Your task to perform on an android device: find which apps use the phone's location Image 0: 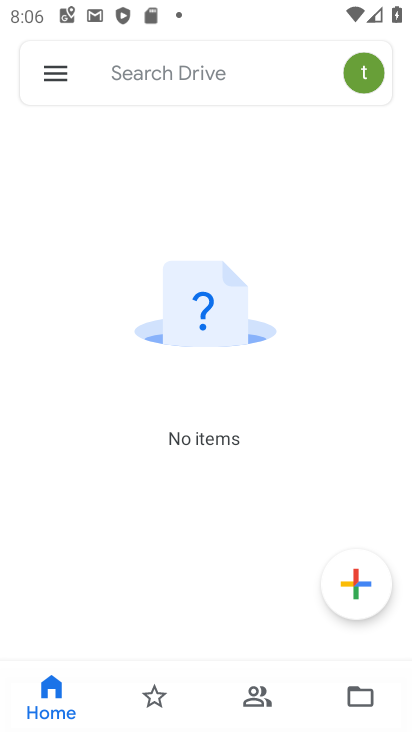
Step 0: press home button
Your task to perform on an android device: find which apps use the phone's location Image 1: 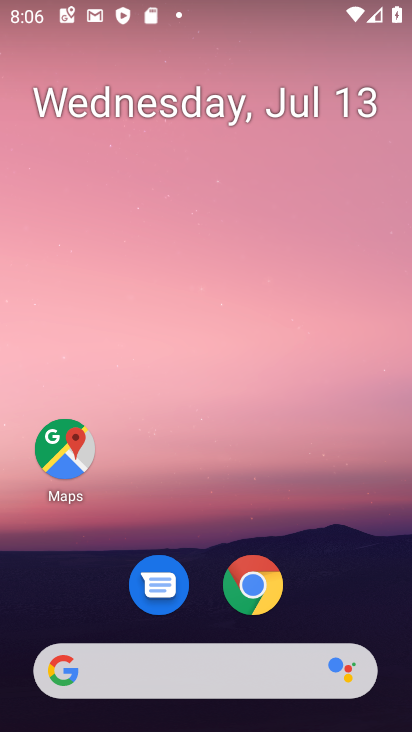
Step 1: drag from (252, 443) to (267, 17)
Your task to perform on an android device: find which apps use the phone's location Image 2: 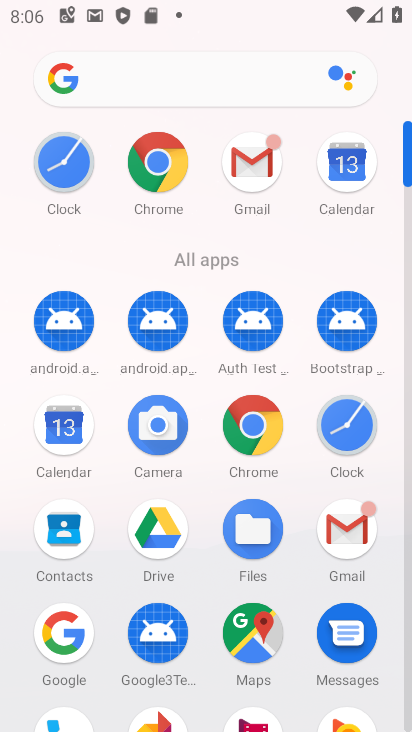
Step 2: drag from (202, 503) to (214, 158)
Your task to perform on an android device: find which apps use the phone's location Image 3: 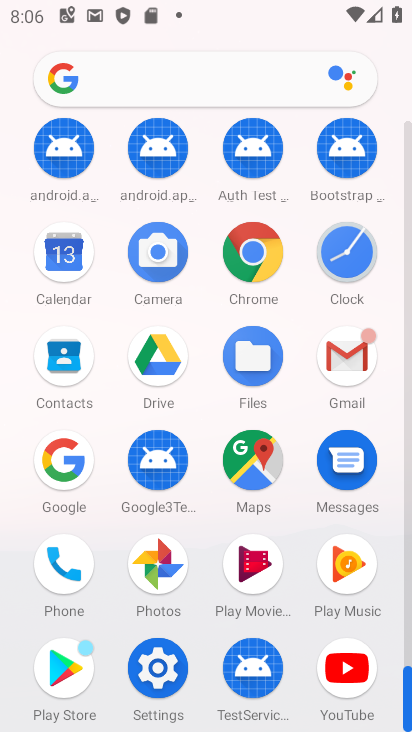
Step 3: click (158, 656)
Your task to perform on an android device: find which apps use the phone's location Image 4: 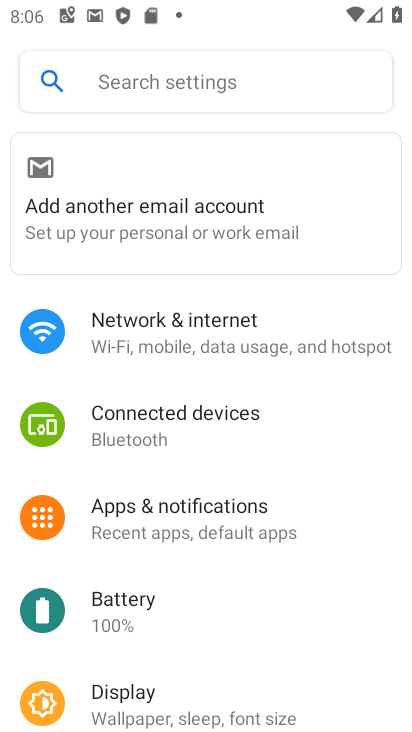
Step 4: drag from (204, 590) to (225, 161)
Your task to perform on an android device: find which apps use the phone's location Image 5: 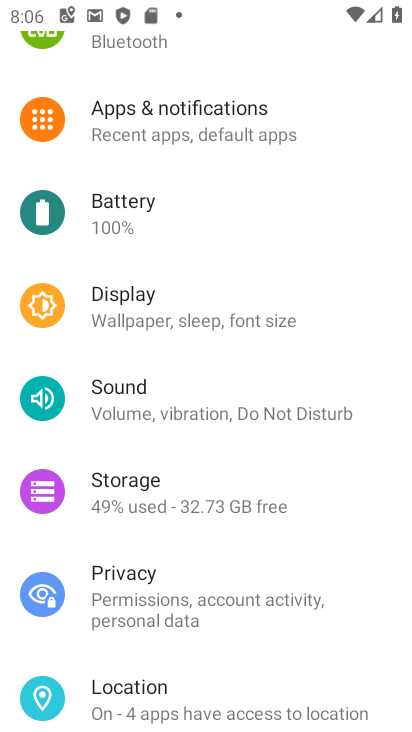
Step 5: drag from (225, 464) to (228, 186)
Your task to perform on an android device: find which apps use the phone's location Image 6: 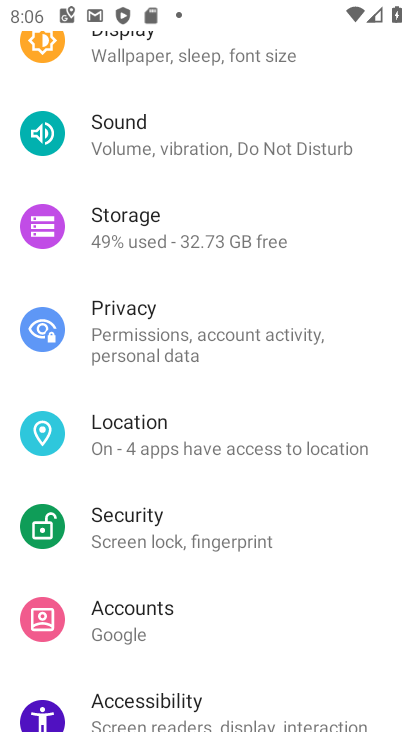
Step 6: click (194, 439)
Your task to perform on an android device: find which apps use the phone's location Image 7: 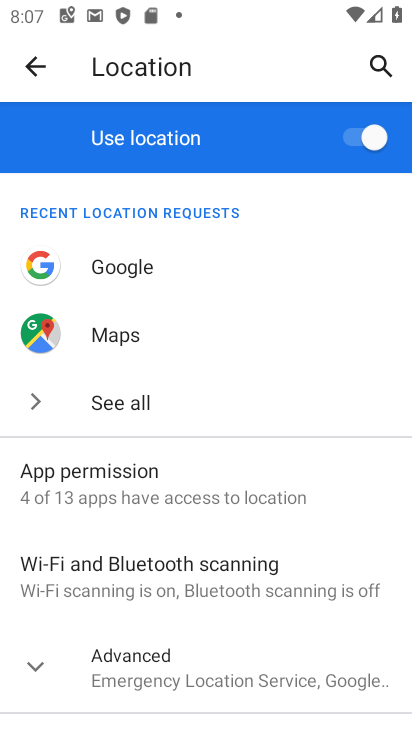
Step 7: click (194, 485)
Your task to perform on an android device: find which apps use the phone's location Image 8: 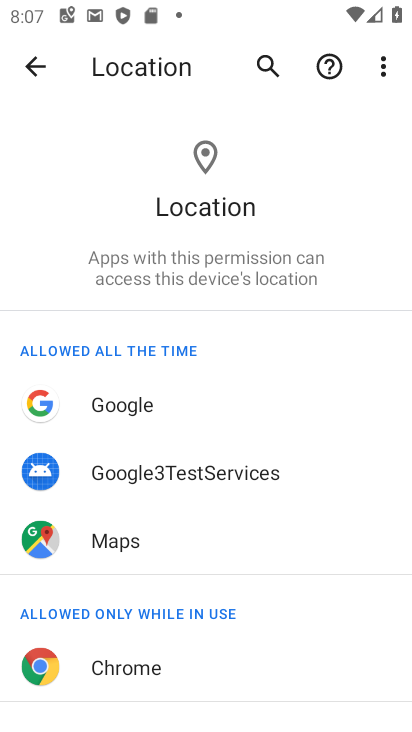
Step 8: task complete